Your task to perform on an android device: install app "Roku - Official Remote Control" Image 0: 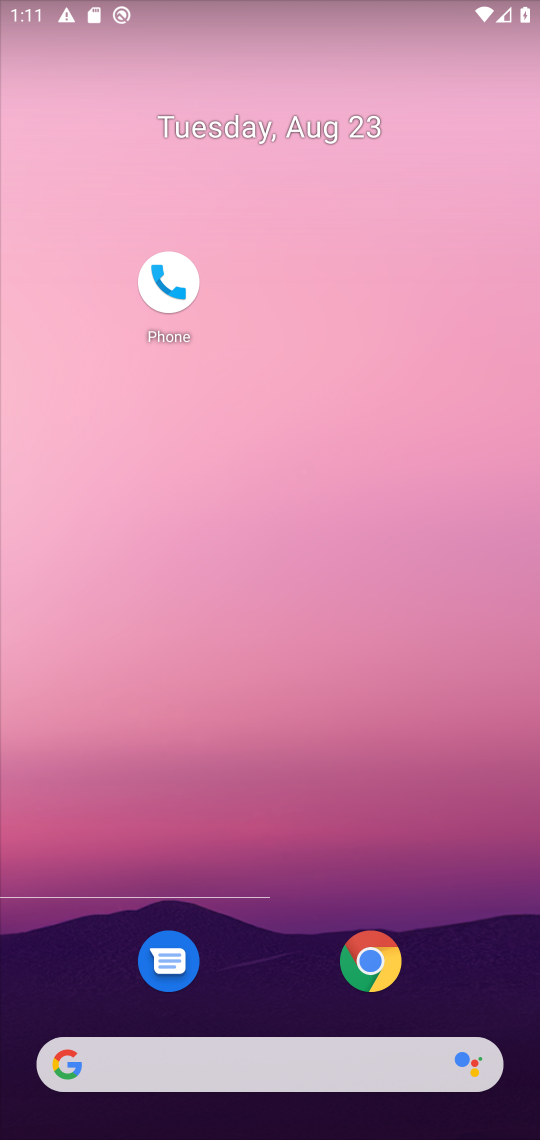
Step 0: drag from (282, 1026) to (539, 191)
Your task to perform on an android device: install app "Roku - Official Remote Control" Image 1: 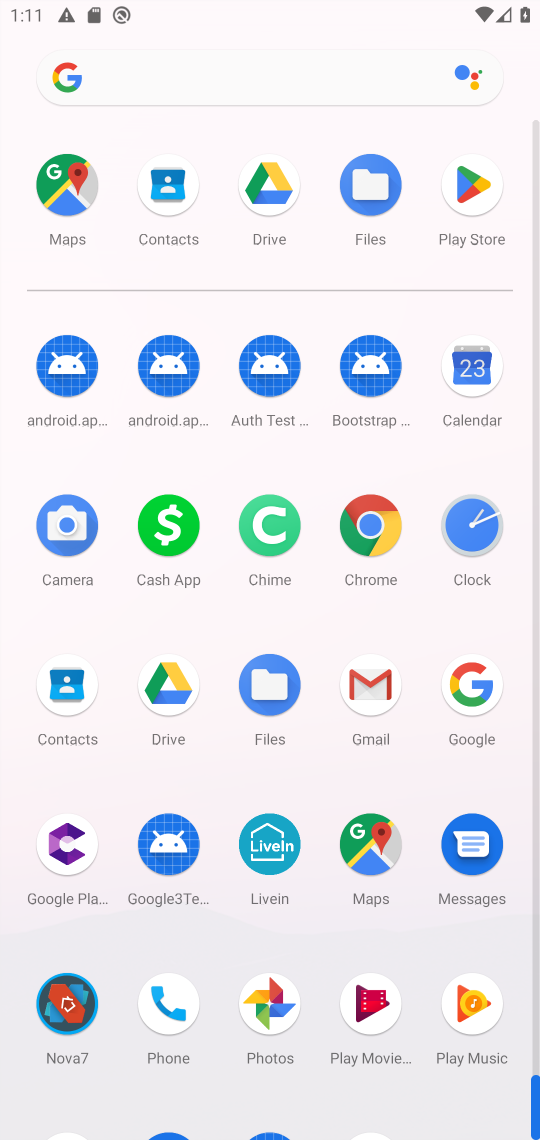
Step 1: click (477, 218)
Your task to perform on an android device: install app "Roku - Official Remote Control" Image 2: 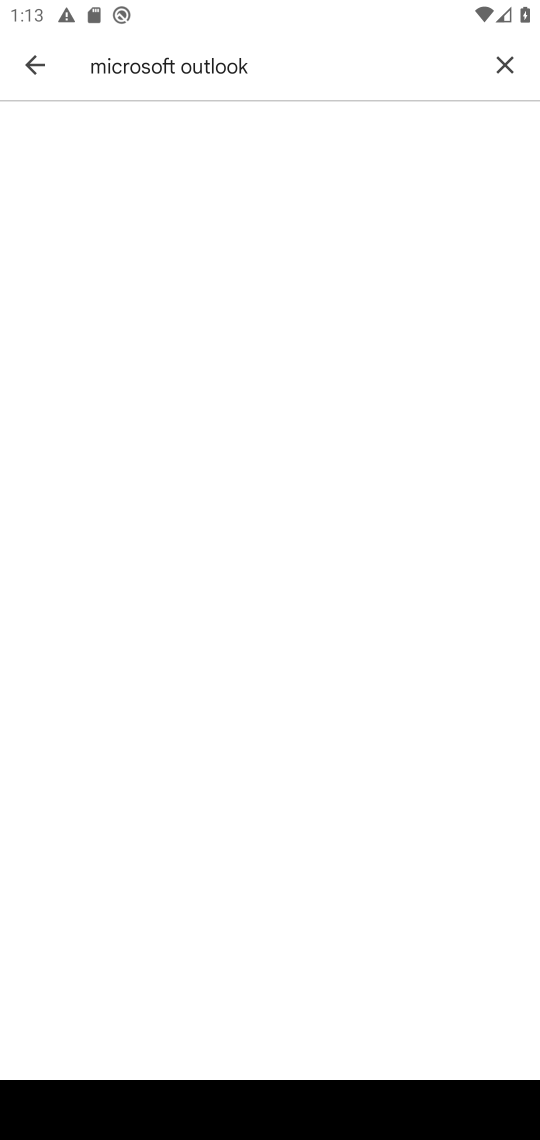
Step 2: task complete